Your task to perform on an android device: uninstall "Facebook Messenger" Image 0: 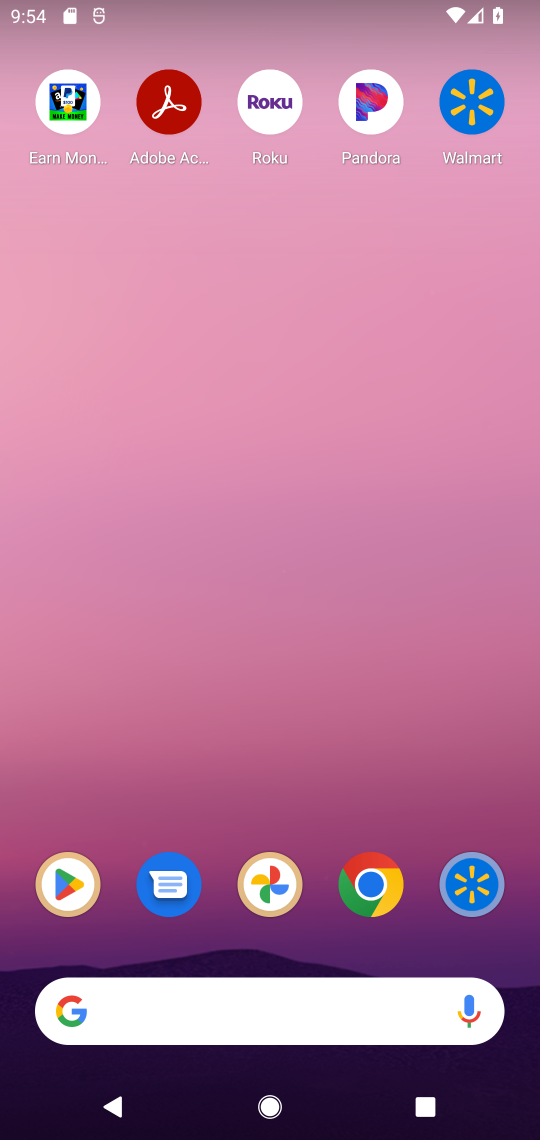
Step 0: click (58, 887)
Your task to perform on an android device: uninstall "Facebook Messenger" Image 1: 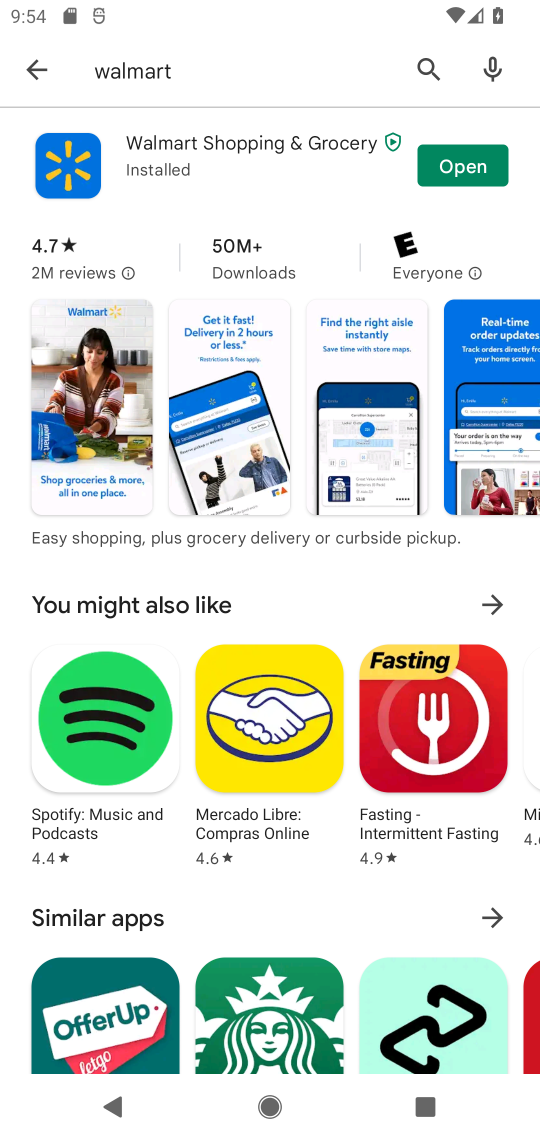
Step 1: click (214, 73)
Your task to perform on an android device: uninstall "Facebook Messenger" Image 2: 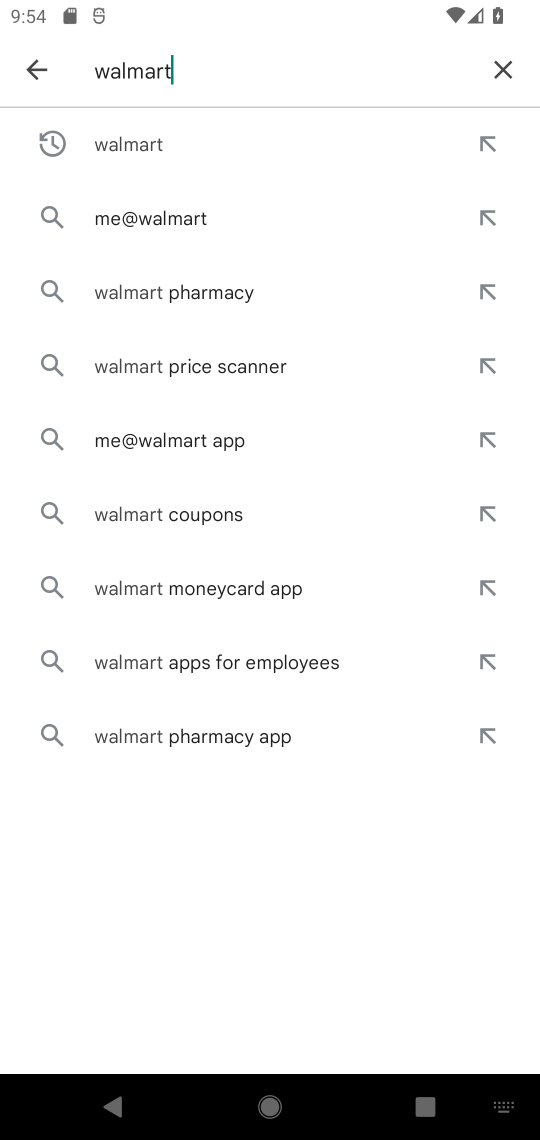
Step 2: click (483, 51)
Your task to perform on an android device: uninstall "Facebook Messenger" Image 3: 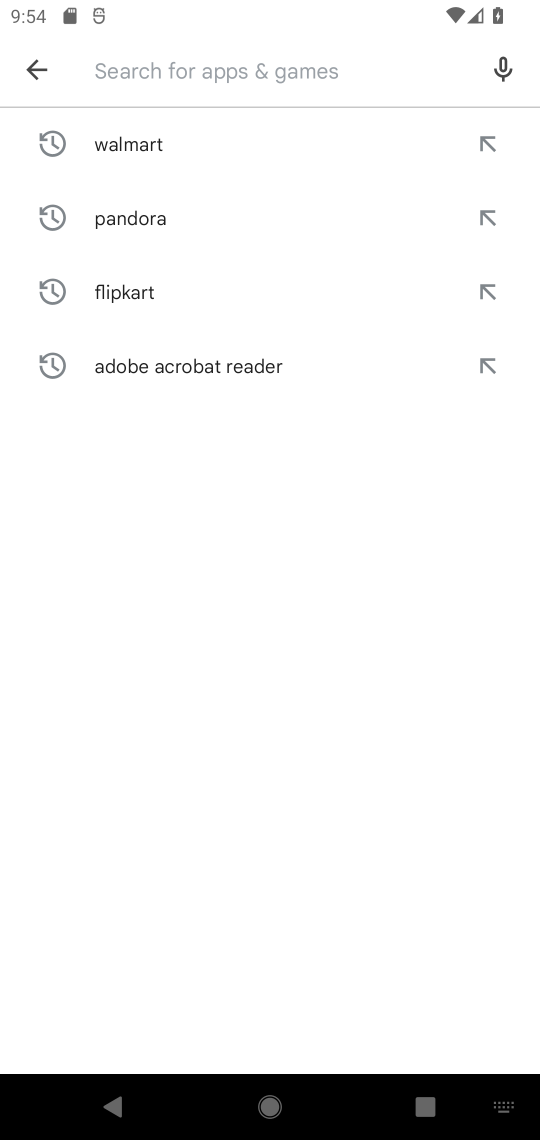
Step 3: type "facebook messenger"
Your task to perform on an android device: uninstall "Facebook Messenger" Image 4: 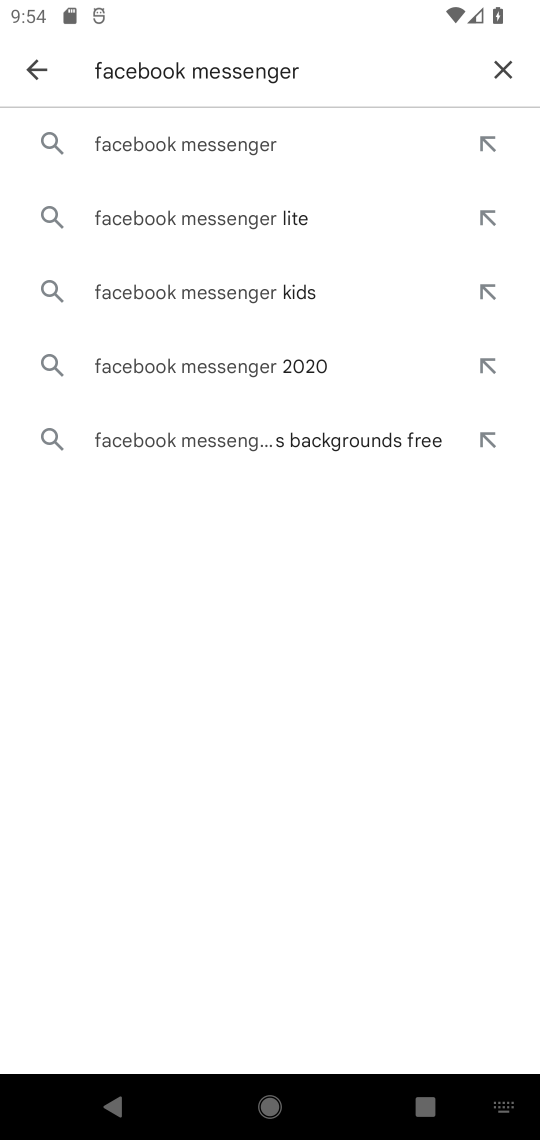
Step 4: click (174, 153)
Your task to perform on an android device: uninstall "Facebook Messenger" Image 5: 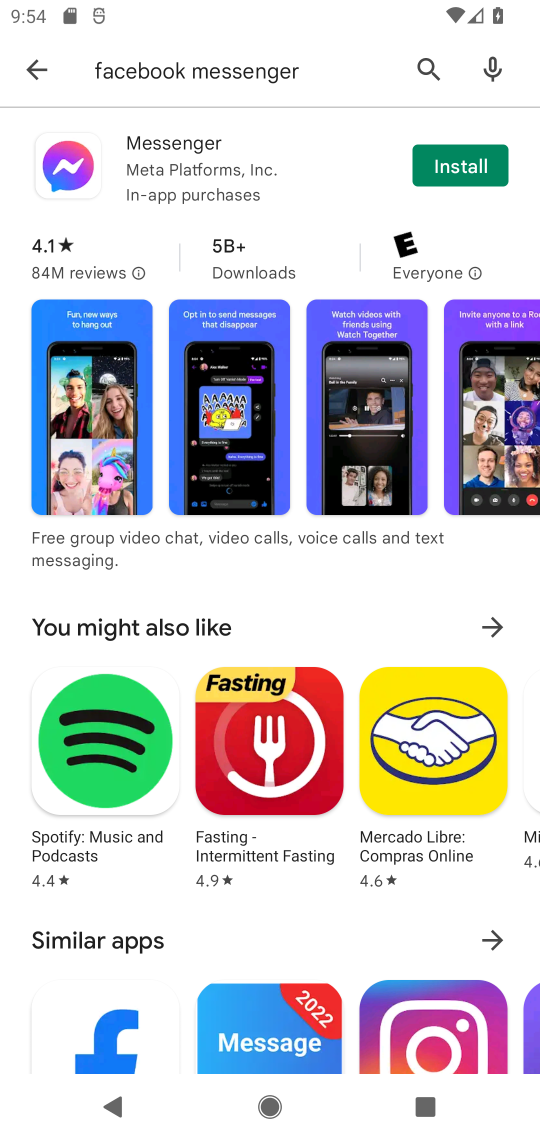
Step 5: task complete